Your task to perform on an android device: What time is it in Tokyo? Image 0: 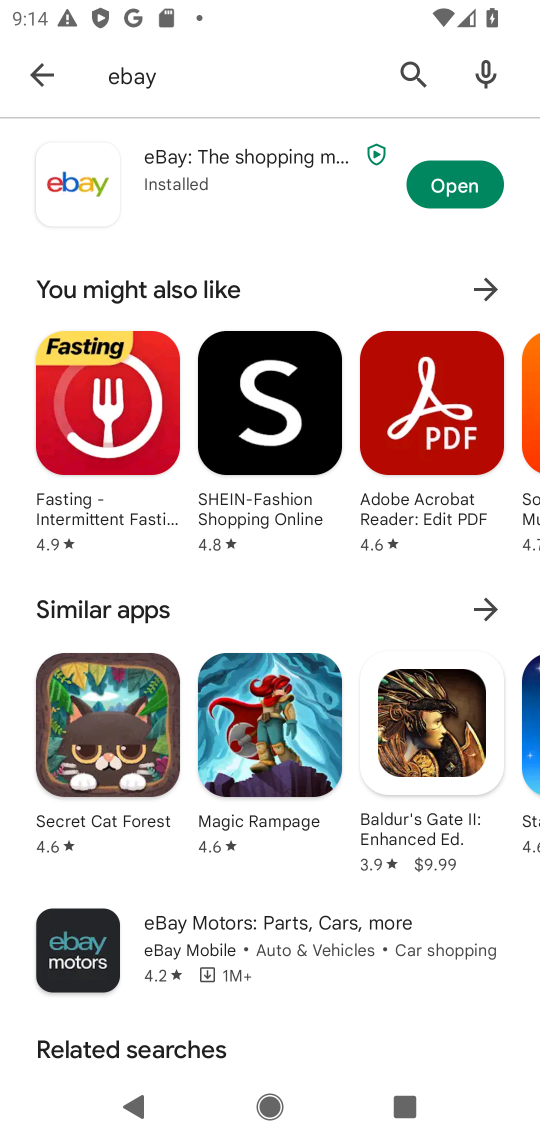
Step 0: press home button
Your task to perform on an android device: What time is it in Tokyo? Image 1: 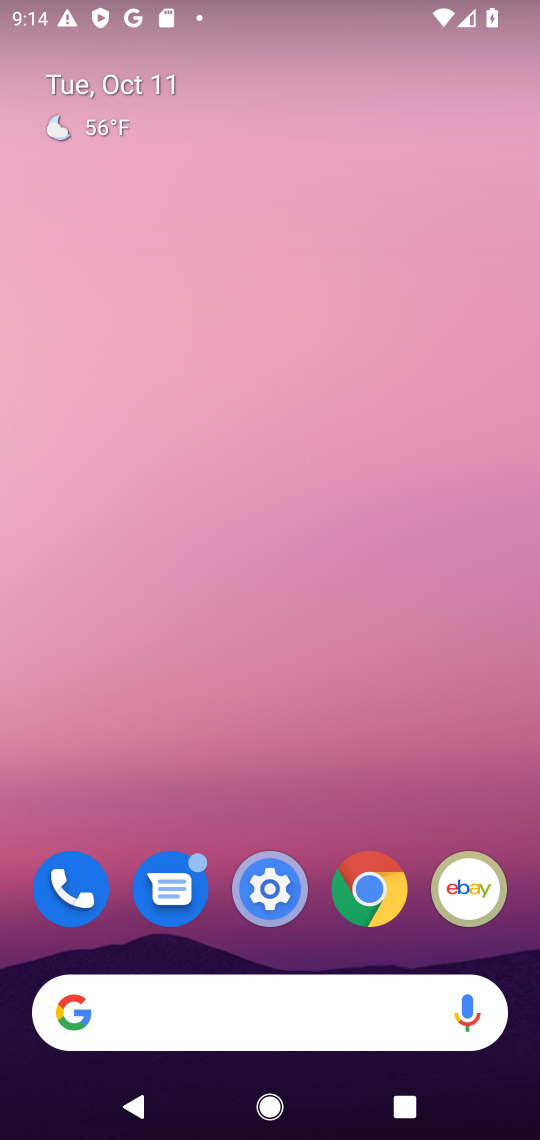
Step 1: click (226, 1015)
Your task to perform on an android device: What time is it in Tokyo? Image 2: 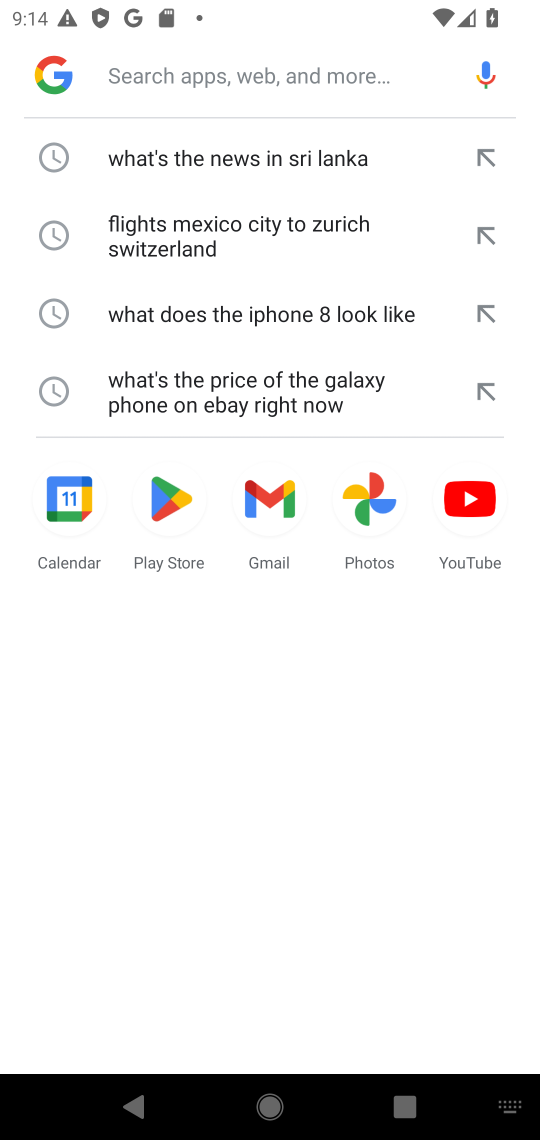
Step 2: click (165, 71)
Your task to perform on an android device: What time is it in Tokyo? Image 3: 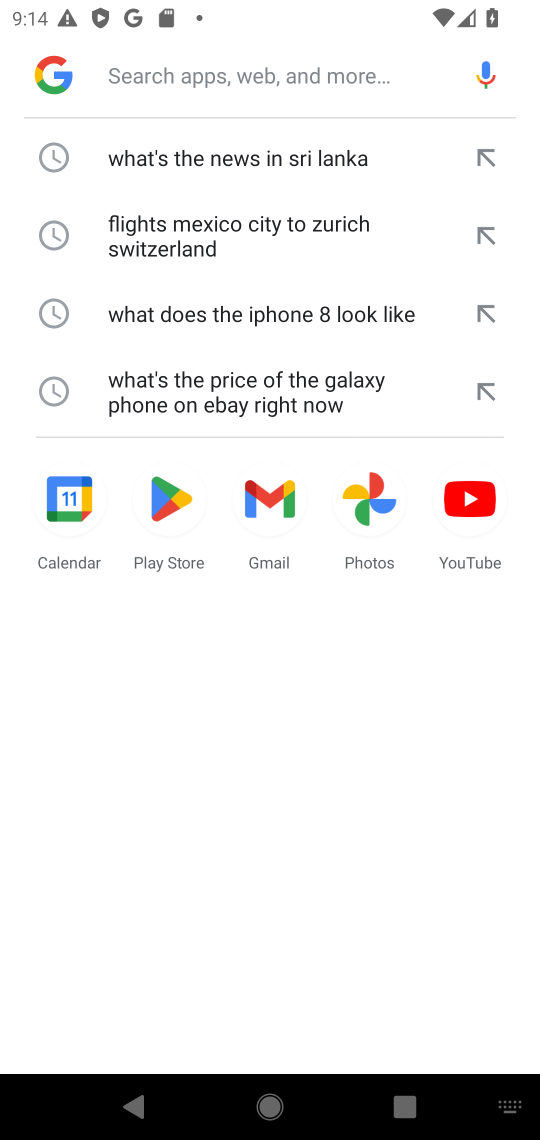
Step 3: type "What time is it in Tokyo?"
Your task to perform on an android device: What time is it in Tokyo? Image 4: 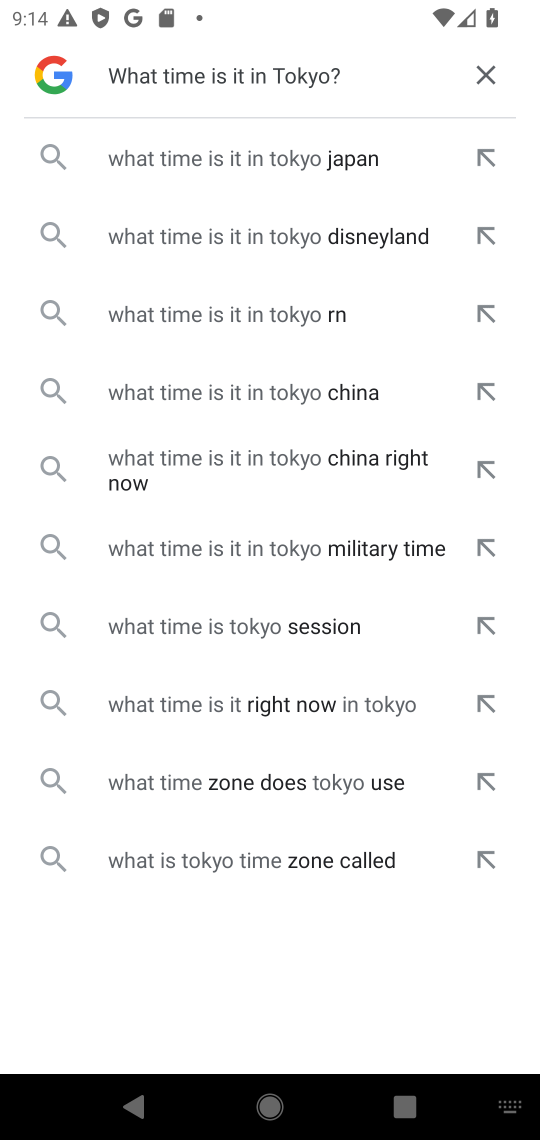
Step 4: click (271, 160)
Your task to perform on an android device: What time is it in Tokyo? Image 5: 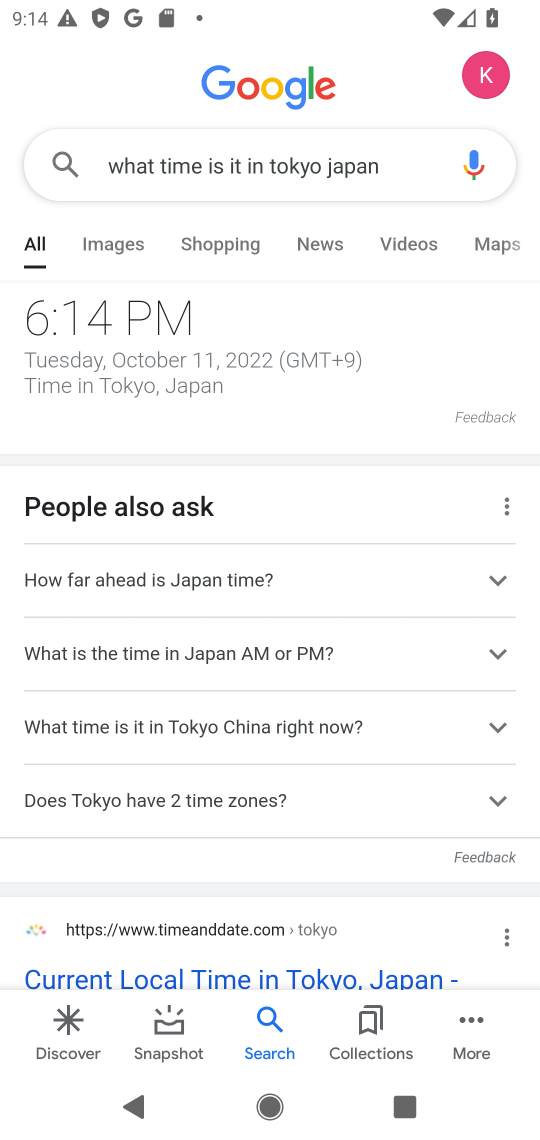
Step 5: task complete